Your task to perform on an android device: turn pop-ups on in chrome Image 0: 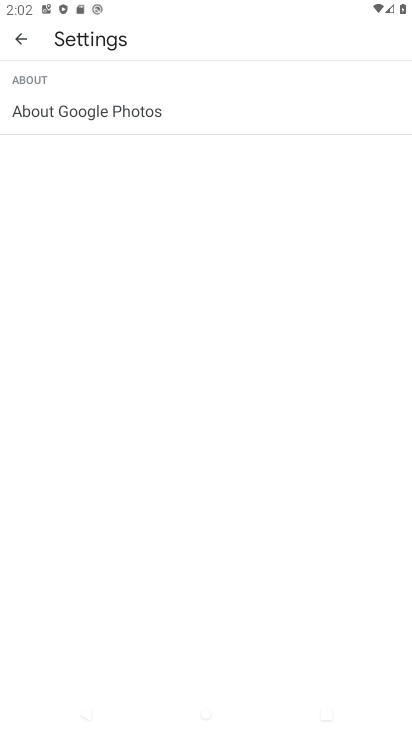
Step 0: press home button
Your task to perform on an android device: turn pop-ups on in chrome Image 1: 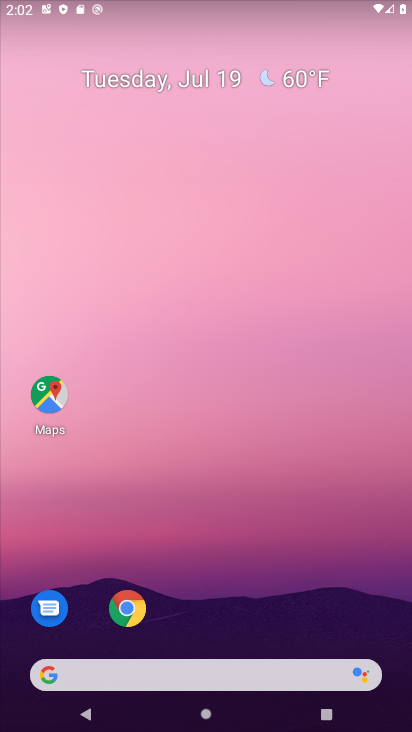
Step 1: click (259, 12)
Your task to perform on an android device: turn pop-ups on in chrome Image 2: 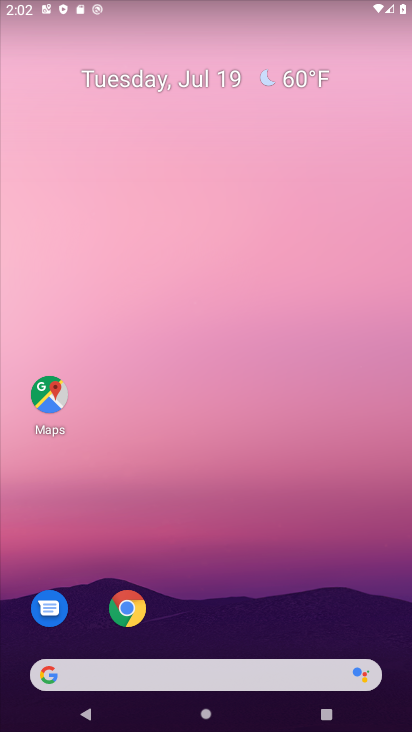
Step 2: drag from (254, 604) to (256, 6)
Your task to perform on an android device: turn pop-ups on in chrome Image 3: 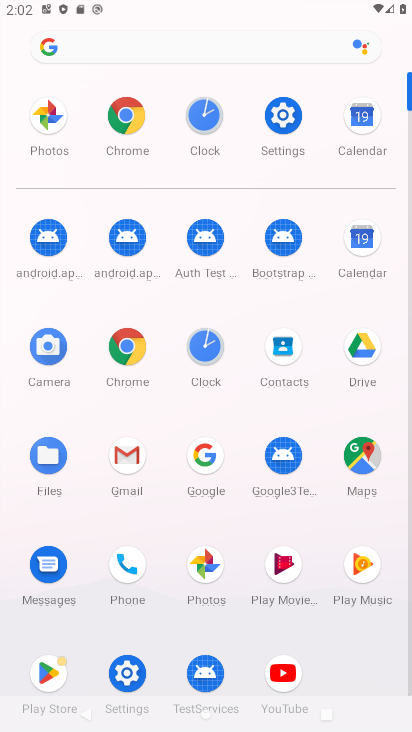
Step 3: click (133, 113)
Your task to perform on an android device: turn pop-ups on in chrome Image 4: 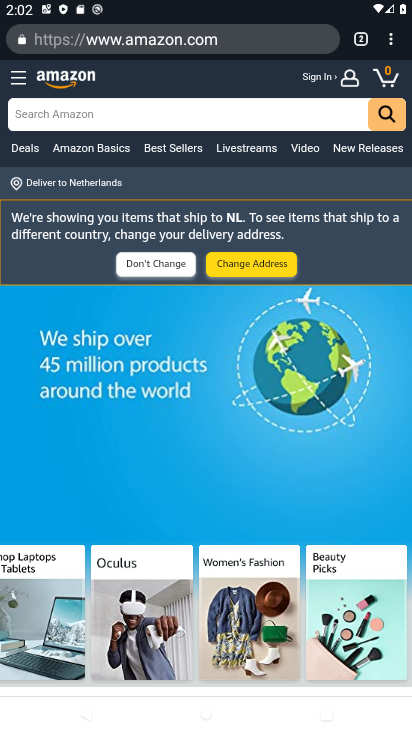
Step 4: drag from (397, 45) to (279, 454)
Your task to perform on an android device: turn pop-ups on in chrome Image 5: 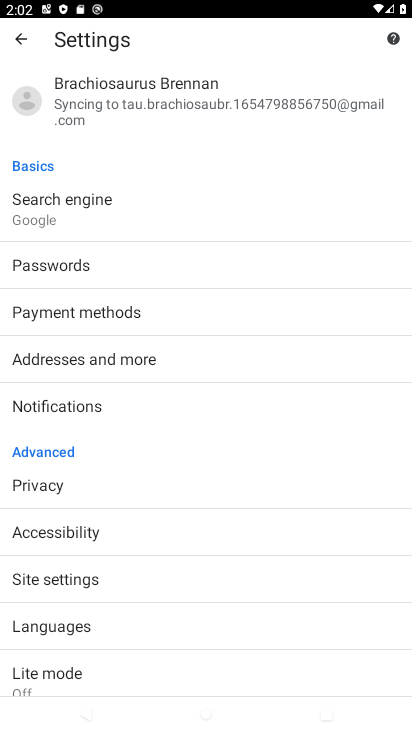
Step 5: drag from (79, 626) to (205, 152)
Your task to perform on an android device: turn pop-ups on in chrome Image 6: 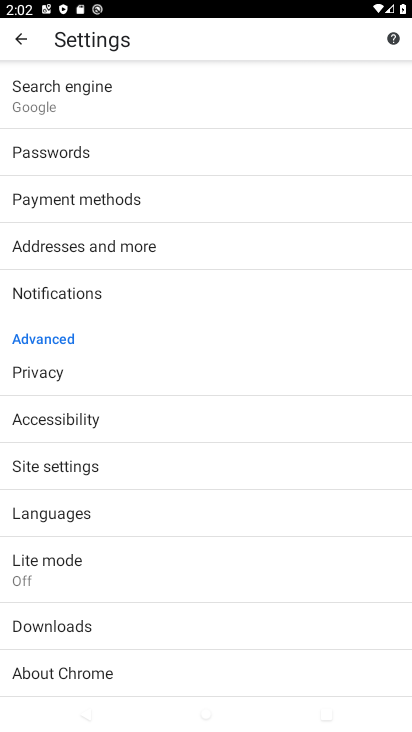
Step 6: click (80, 470)
Your task to perform on an android device: turn pop-ups on in chrome Image 7: 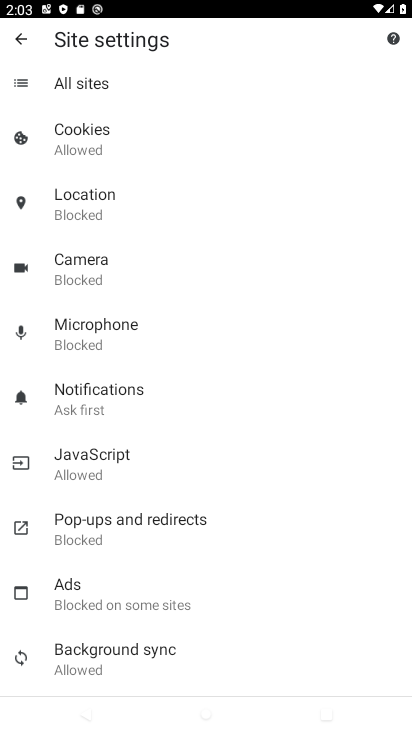
Step 7: click (93, 524)
Your task to perform on an android device: turn pop-ups on in chrome Image 8: 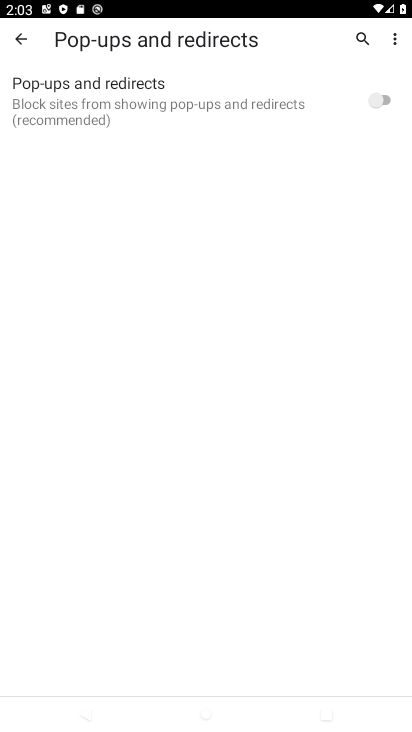
Step 8: click (386, 97)
Your task to perform on an android device: turn pop-ups on in chrome Image 9: 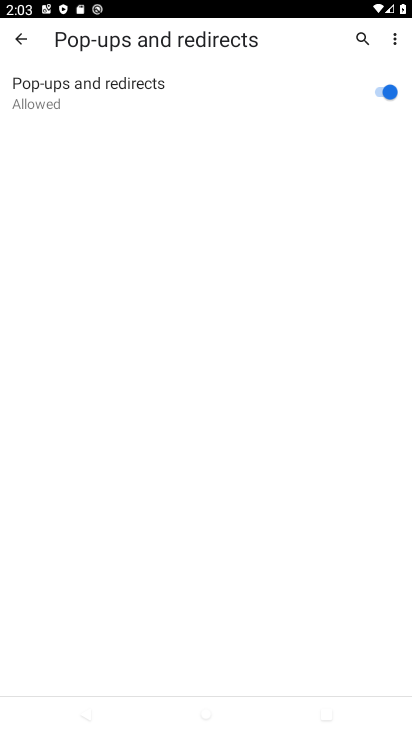
Step 9: task complete